Your task to perform on an android device: make emails show in primary in the gmail app Image 0: 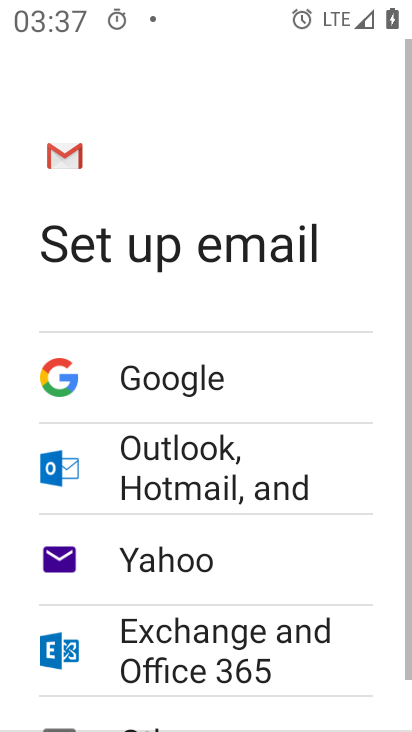
Step 0: press back button
Your task to perform on an android device: make emails show in primary in the gmail app Image 1: 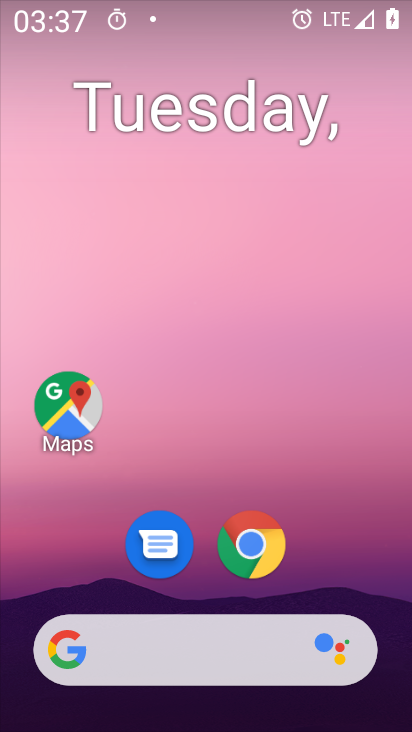
Step 1: drag from (356, 528) to (251, 38)
Your task to perform on an android device: make emails show in primary in the gmail app Image 2: 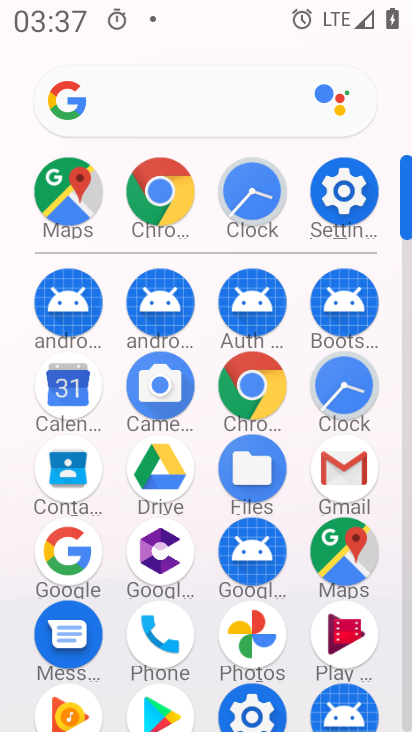
Step 2: drag from (23, 576) to (21, 283)
Your task to perform on an android device: make emails show in primary in the gmail app Image 3: 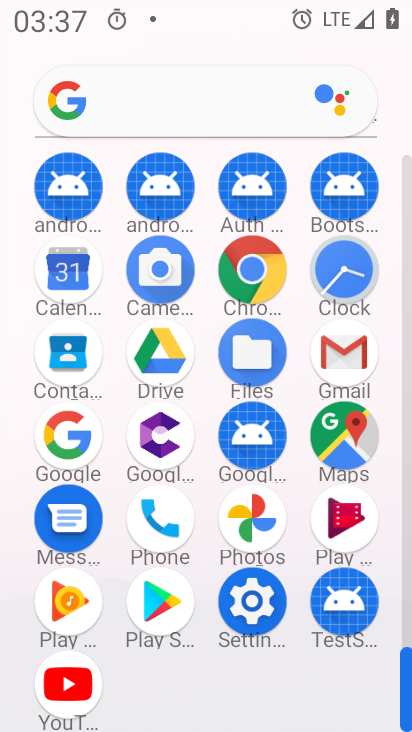
Step 3: click (342, 344)
Your task to perform on an android device: make emails show in primary in the gmail app Image 4: 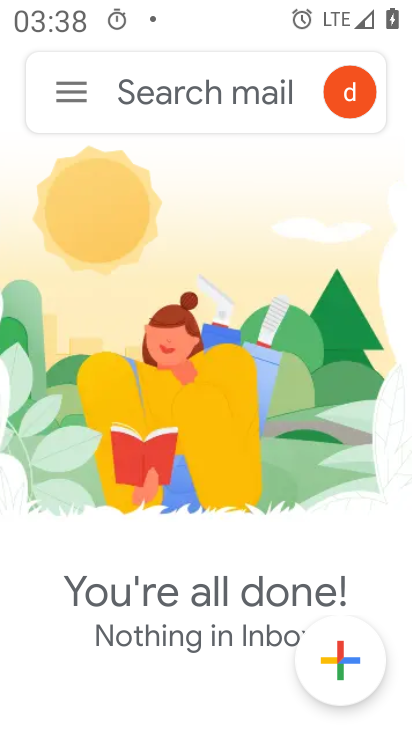
Step 4: click (61, 87)
Your task to perform on an android device: make emails show in primary in the gmail app Image 5: 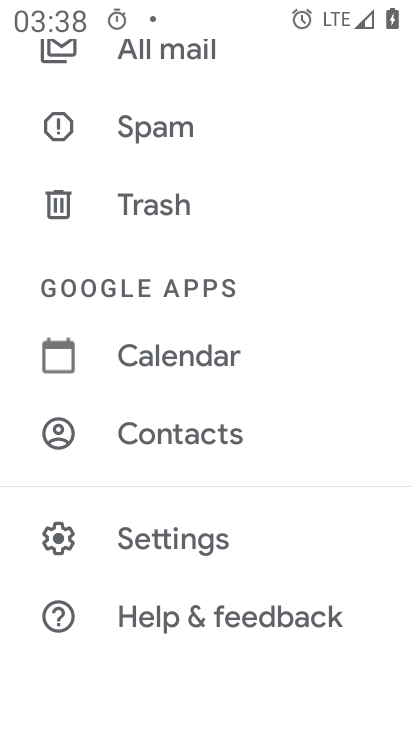
Step 5: drag from (270, 163) to (284, 610)
Your task to perform on an android device: make emails show in primary in the gmail app Image 6: 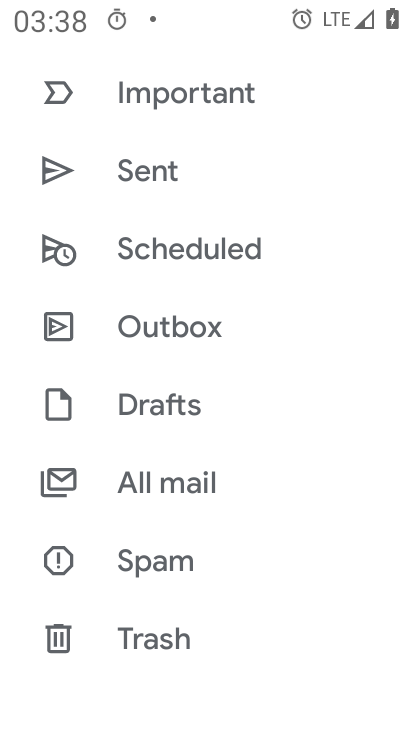
Step 6: drag from (242, 210) to (248, 630)
Your task to perform on an android device: make emails show in primary in the gmail app Image 7: 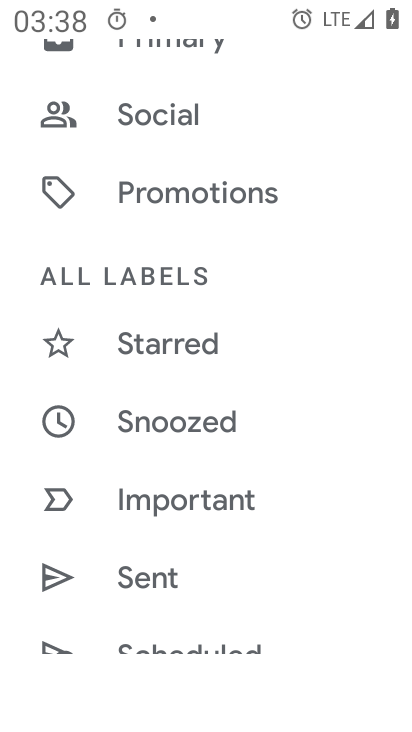
Step 7: drag from (261, 157) to (263, 572)
Your task to perform on an android device: make emails show in primary in the gmail app Image 8: 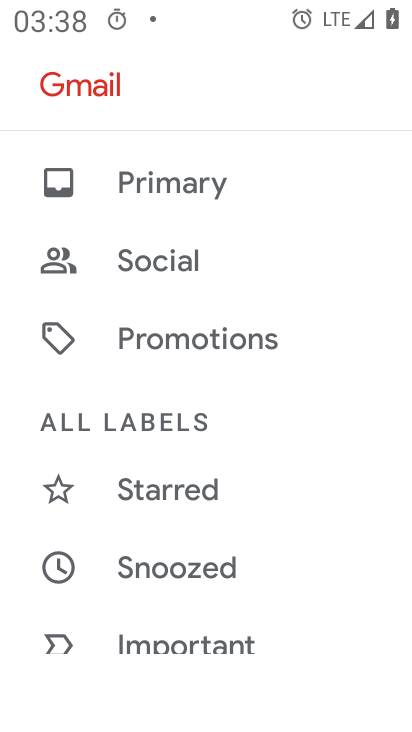
Step 8: drag from (254, 604) to (243, 150)
Your task to perform on an android device: make emails show in primary in the gmail app Image 9: 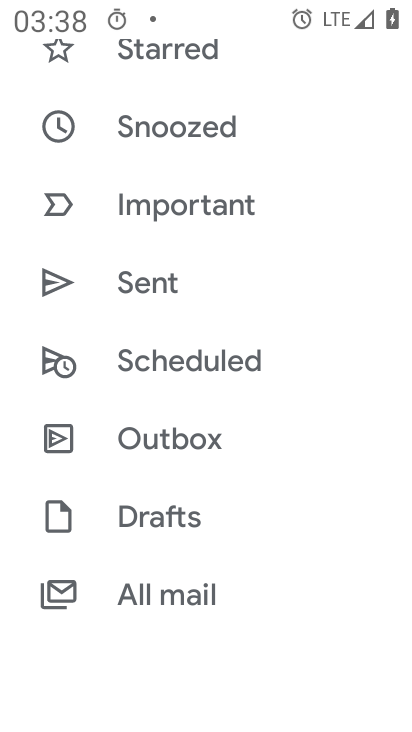
Step 9: drag from (253, 529) to (253, 153)
Your task to perform on an android device: make emails show in primary in the gmail app Image 10: 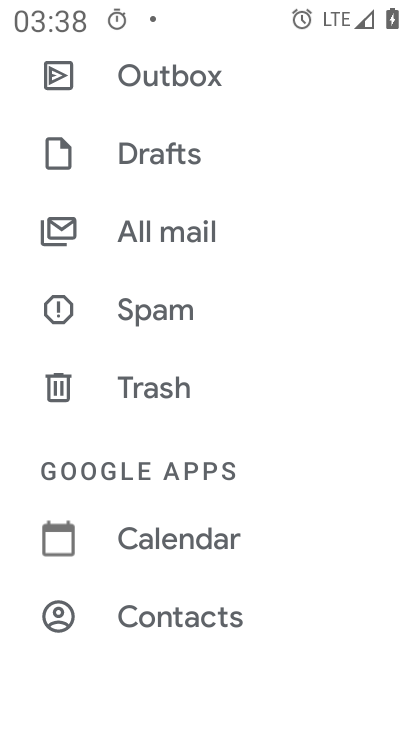
Step 10: drag from (241, 538) to (265, 125)
Your task to perform on an android device: make emails show in primary in the gmail app Image 11: 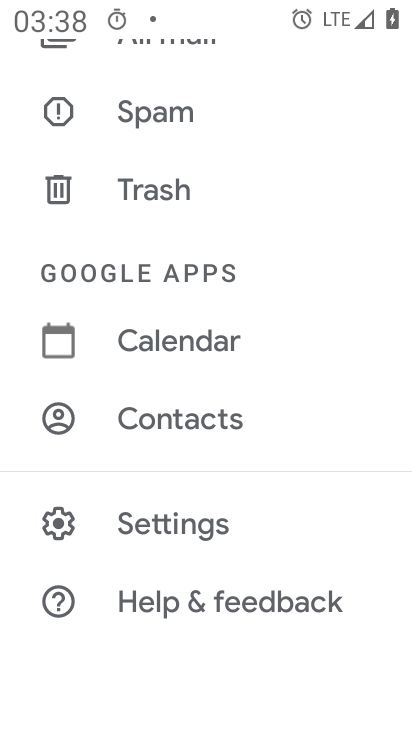
Step 11: click (175, 517)
Your task to perform on an android device: make emails show in primary in the gmail app Image 12: 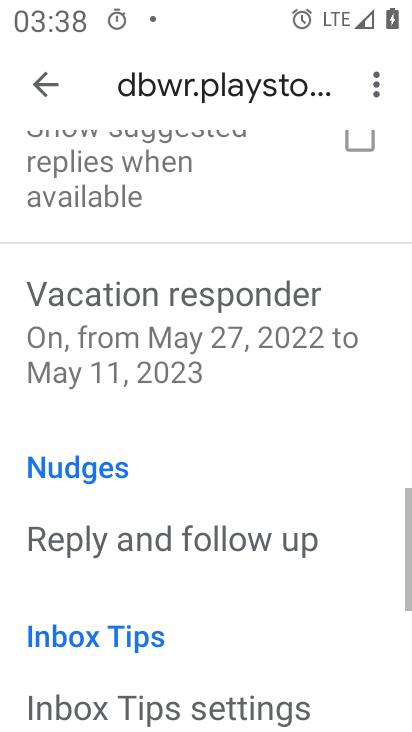
Step 12: drag from (285, 328) to (294, 579)
Your task to perform on an android device: make emails show in primary in the gmail app Image 13: 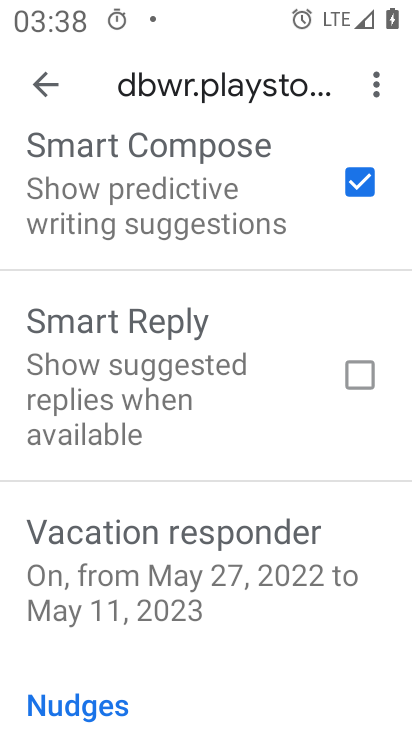
Step 13: drag from (243, 221) to (232, 620)
Your task to perform on an android device: make emails show in primary in the gmail app Image 14: 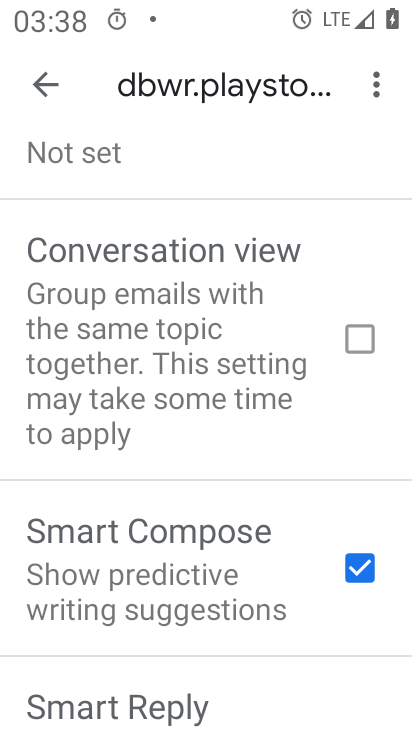
Step 14: drag from (250, 253) to (226, 637)
Your task to perform on an android device: make emails show in primary in the gmail app Image 15: 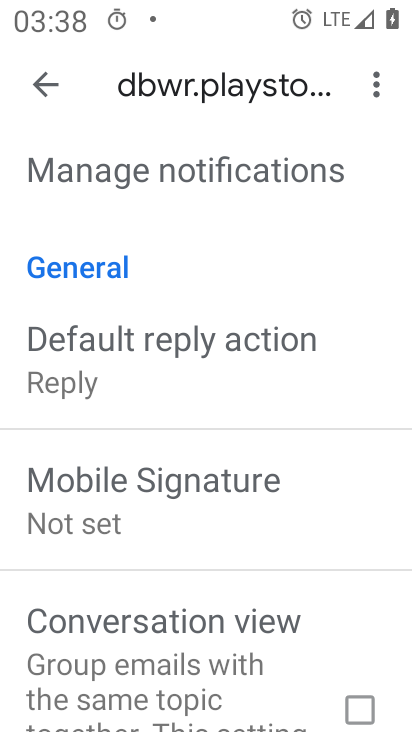
Step 15: drag from (248, 241) to (228, 601)
Your task to perform on an android device: make emails show in primary in the gmail app Image 16: 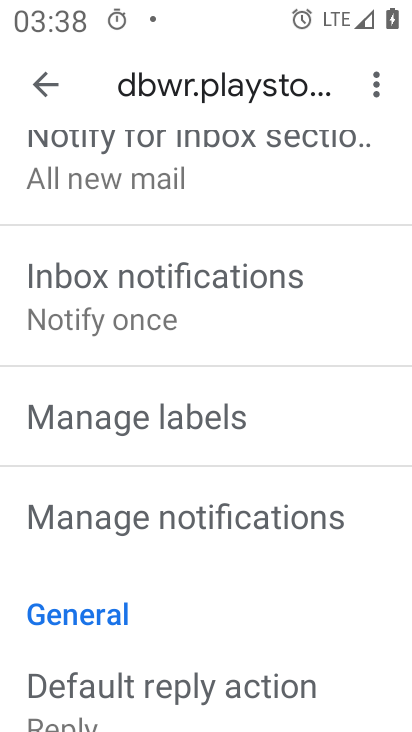
Step 16: drag from (243, 229) to (243, 606)
Your task to perform on an android device: make emails show in primary in the gmail app Image 17: 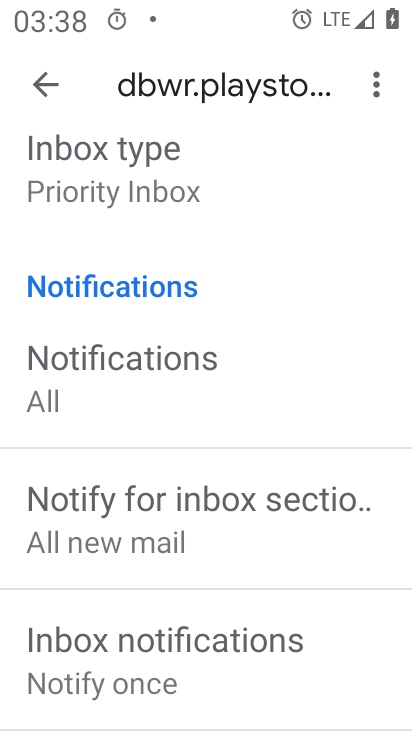
Step 17: drag from (240, 204) to (240, 544)
Your task to perform on an android device: make emails show in primary in the gmail app Image 18: 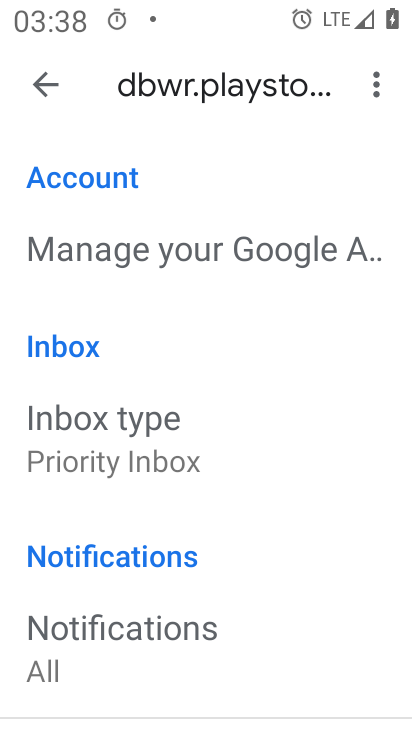
Step 18: click (190, 428)
Your task to perform on an android device: make emails show in primary in the gmail app Image 19: 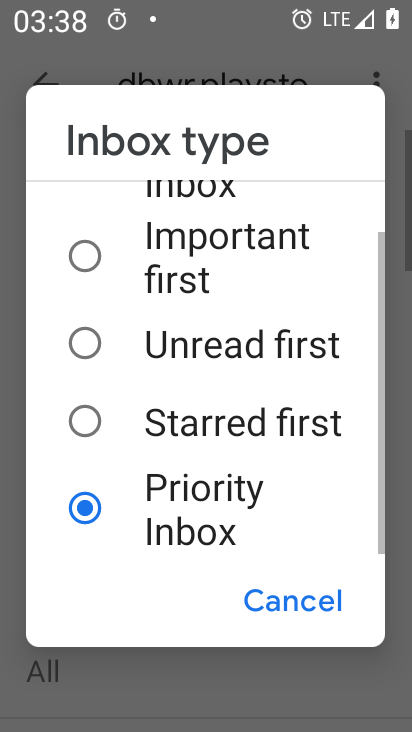
Step 19: drag from (218, 259) to (234, 535)
Your task to perform on an android device: make emails show in primary in the gmail app Image 20: 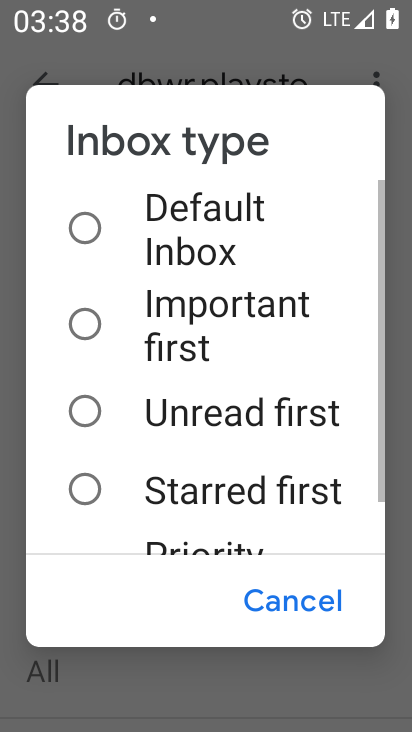
Step 20: click (166, 210)
Your task to perform on an android device: make emails show in primary in the gmail app Image 21: 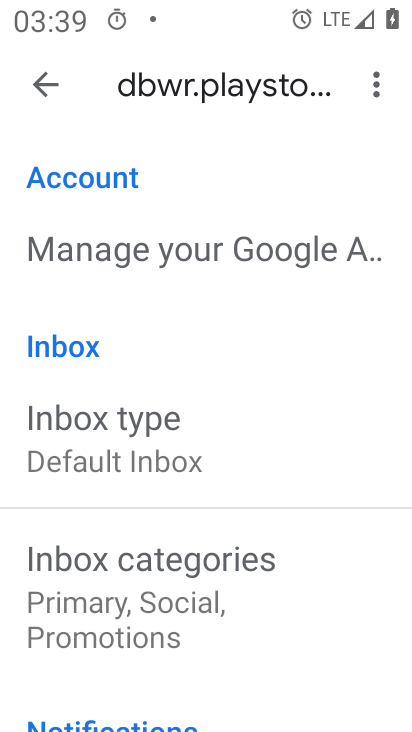
Step 21: click (229, 585)
Your task to perform on an android device: make emails show in primary in the gmail app Image 22: 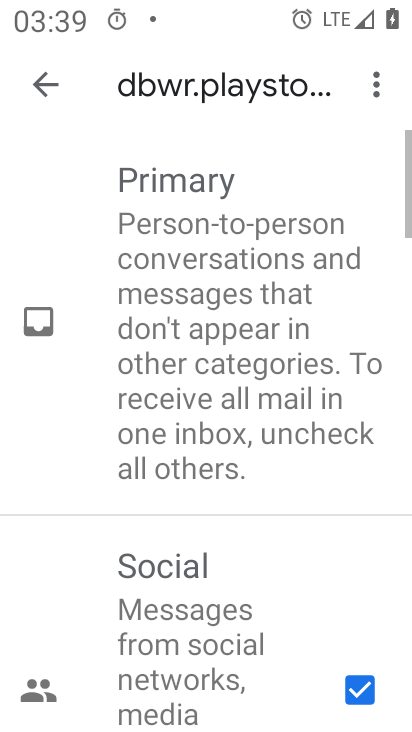
Step 22: drag from (309, 522) to (259, 136)
Your task to perform on an android device: make emails show in primary in the gmail app Image 23: 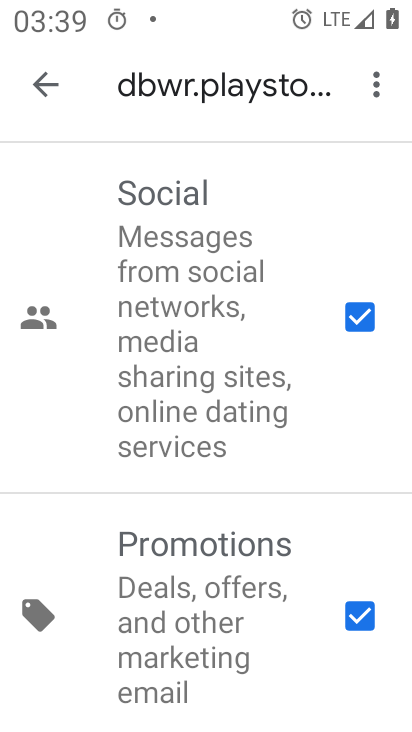
Step 23: click (350, 318)
Your task to perform on an android device: make emails show in primary in the gmail app Image 24: 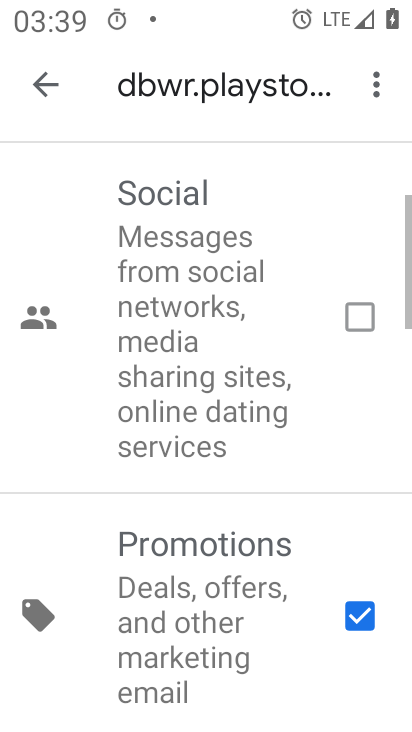
Step 24: click (351, 615)
Your task to perform on an android device: make emails show in primary in the gmail app Image 25: 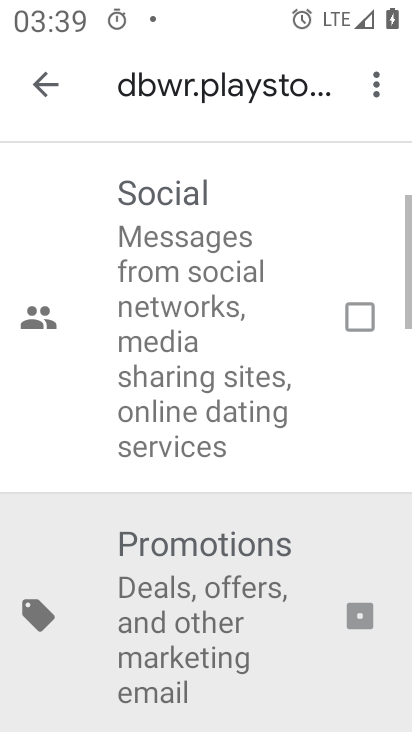
Step 25: drag from (253, 642) to (217, 144)
Your task to perform on an android device: make emails show in primary in the gmail app Image 26: 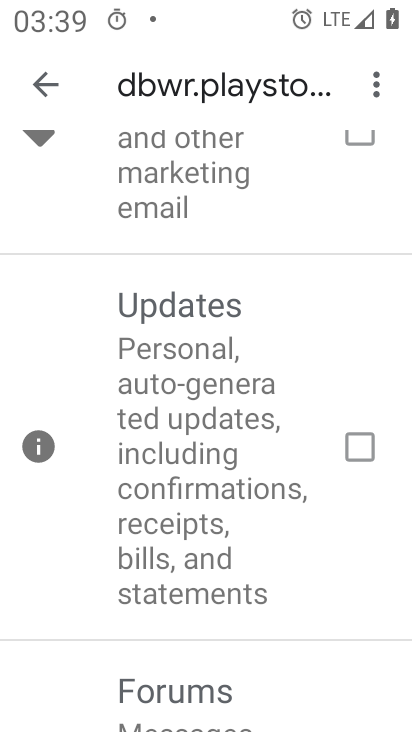
Step 26: click (47, 75)
Your task to perform on an android device: make emails show in primary in the gmail app Image 27: 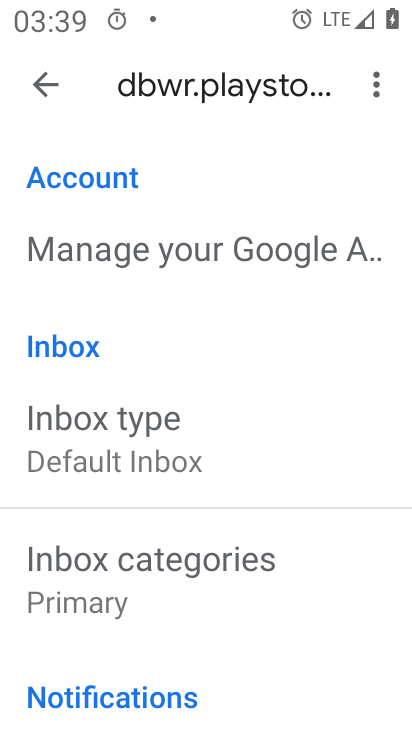
Step 27: task complete